Your task to perform on an android device: turn on showing notifications on the lock screen Image 0: 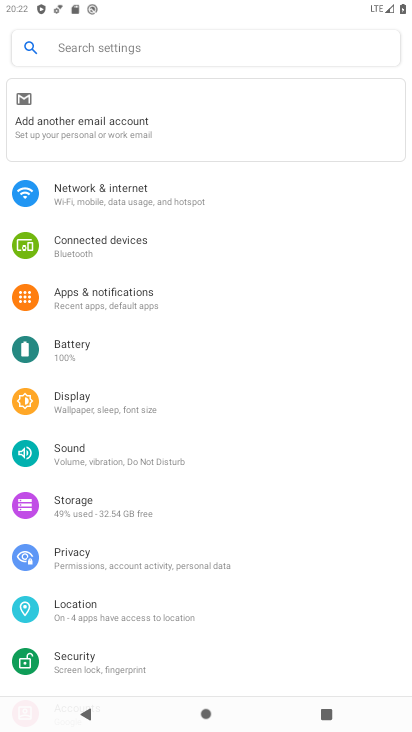
Step 0: press home button
Your task to perform on an android device: turn on showing notifications on the lock screen Image 1: 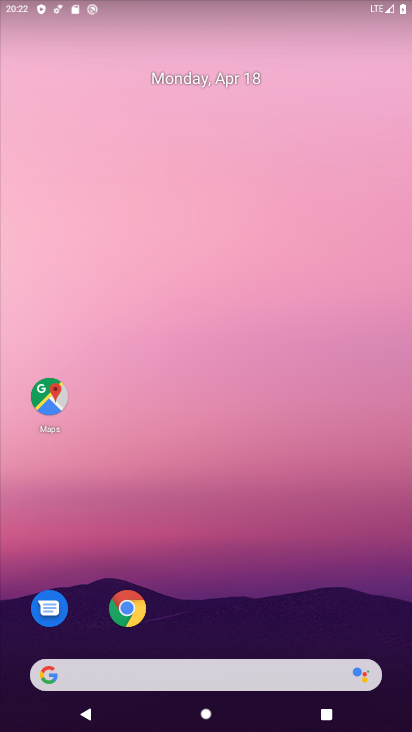
Step 1: drag from (232, 601) to (223, 143)
Your task to perform on an android device: turn on showing notifications on the lock screen Image 2: 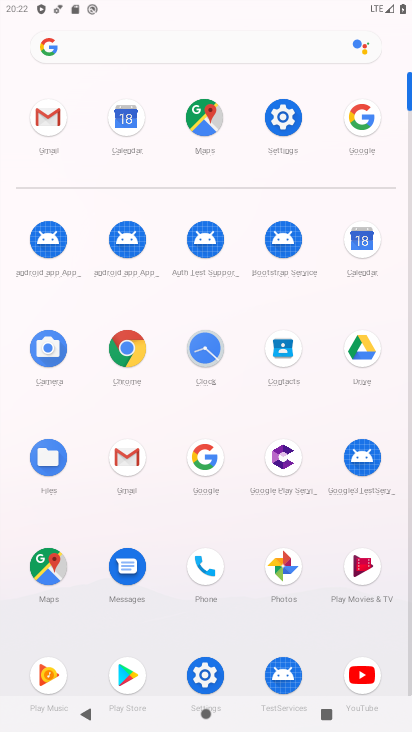
Step 2: click (285, 120)
Your task to perform on an android device: turn on showing notifications on the lock screen Image 3: 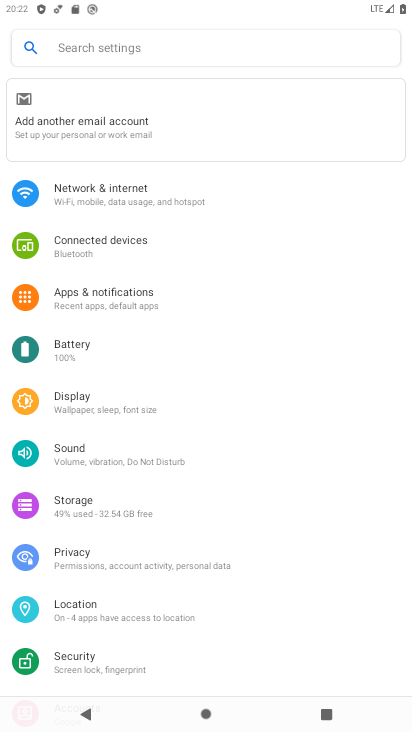
Step 3: click (112, 295)
Your task to perform on an android device: turn on showing notifications on the lock screen Image 4: 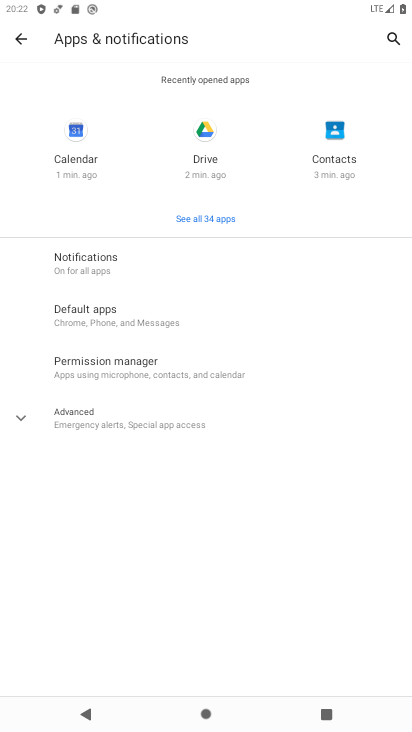
Step 4: click (111, 265)
Your task to perform on an android device: turn on showing notifications on the lock screen Image 5: 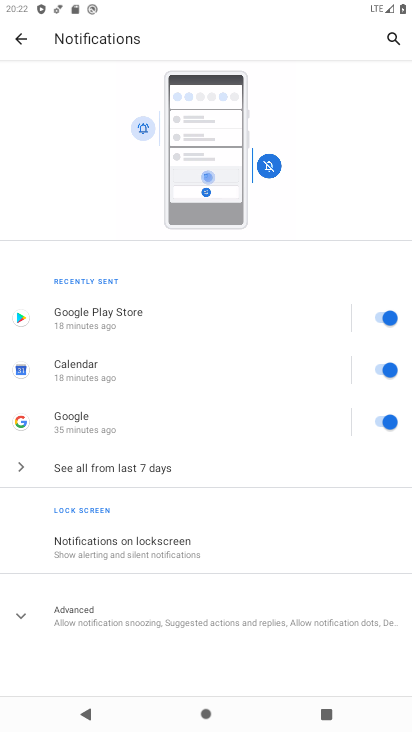
Step 5: click (151, 550)
Your task to perform on an android device: turn on showing notifications on the lock screen Image 6: 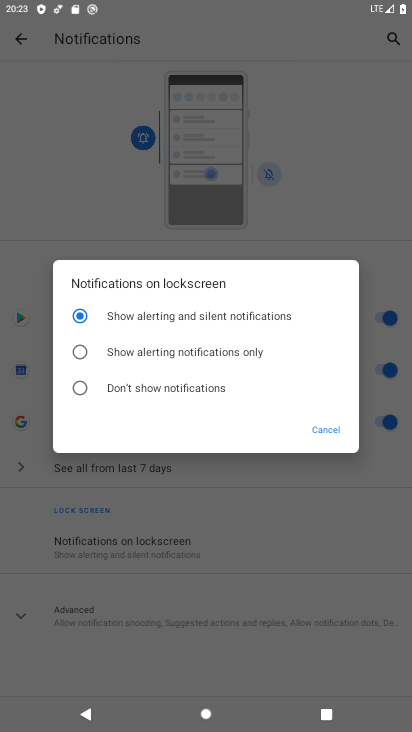
Step 6: task complete